Your task to perform on an android device: make emails show in primary in the gmail app Image 0: 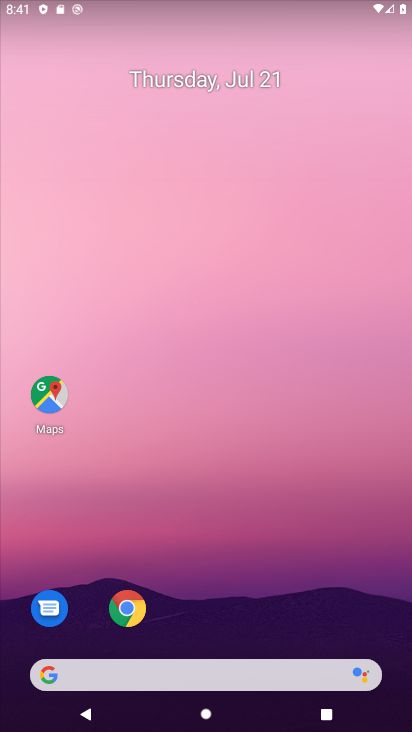
Step 0: drag from (224, 639) to (245, 128)
Your task to perform on an android device: make emails show in primary in the gmail app Image 1: 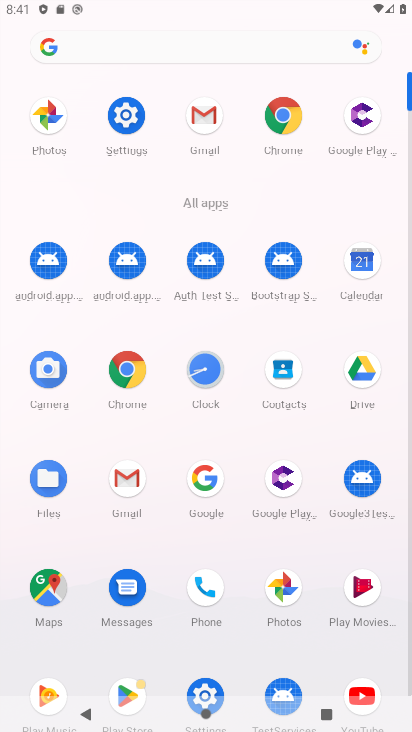
Step 1: click (215, 124)
Your task to perform on an android device: make emails show in primary in the gmail app Image 2: 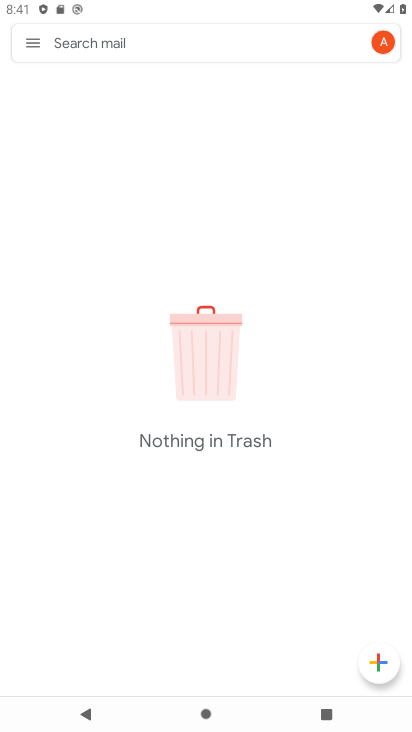
Step 2: click (34, 47)
Your task to perform on an android device: make emails show in primary in the gmail app Image 3: 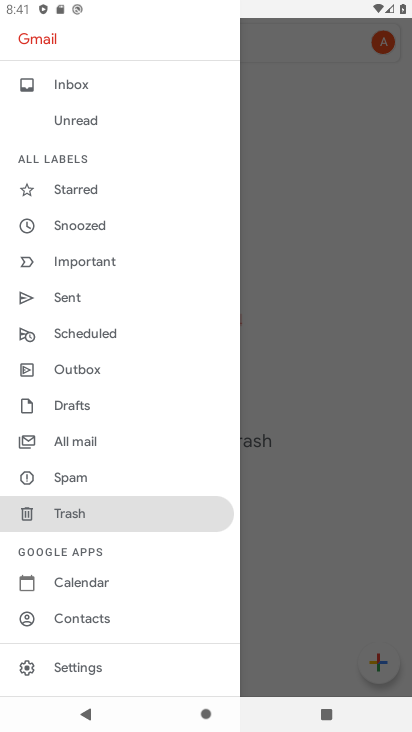
Step 3: click (122, 664)
Your task to perform on an android device: make emails show in primary in the gmail app Image 4: 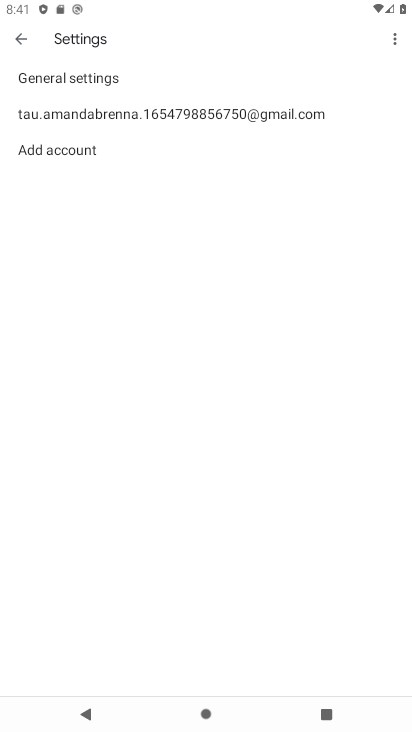
Step 4: click (197, 106)
Your task to perform on an android device: make emails show in primary in the gmail app Image 5: 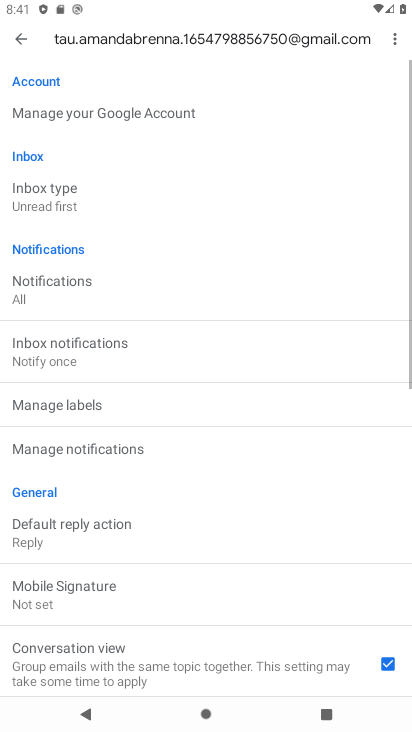
Step 5: click (145, 209)
Your task to perform on an android device: make emails show in primary in the gmail app Image 6: 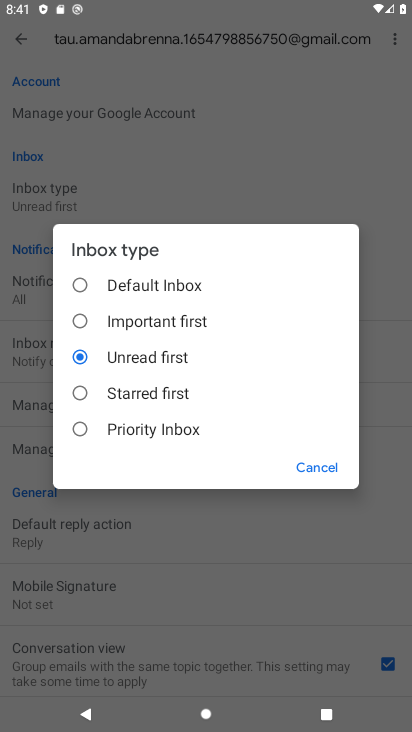
Step 6: click (160, 274)
Your task to perform on an android device: make emails show in primary in the gmail app Image 7: 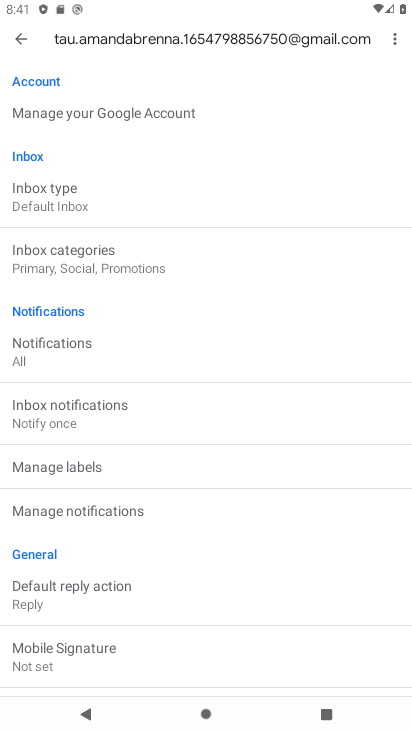
Step 7: task complete